Your task to perform on an android device: Go to display settings Image 0: 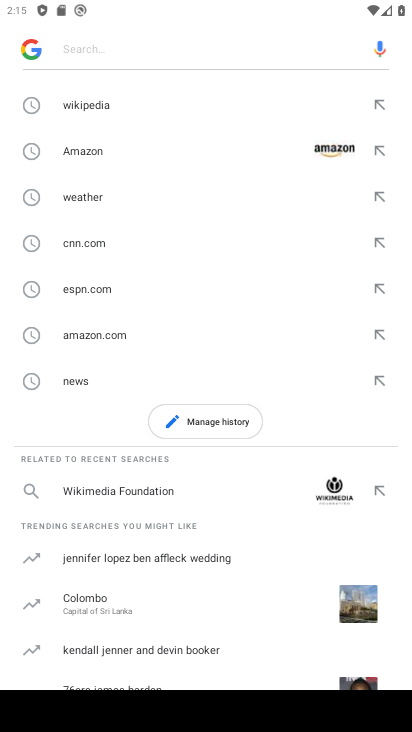
Step 0: press home button
Your task to perform on an android device: Go to display settings Image 1: 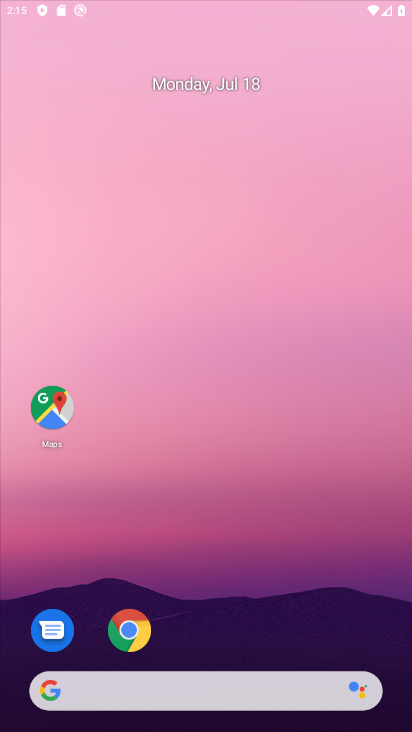
Step 1: drag from (392, 633) to (271, 44)
Your task to perform on an android device: Go to display settings Image 2: 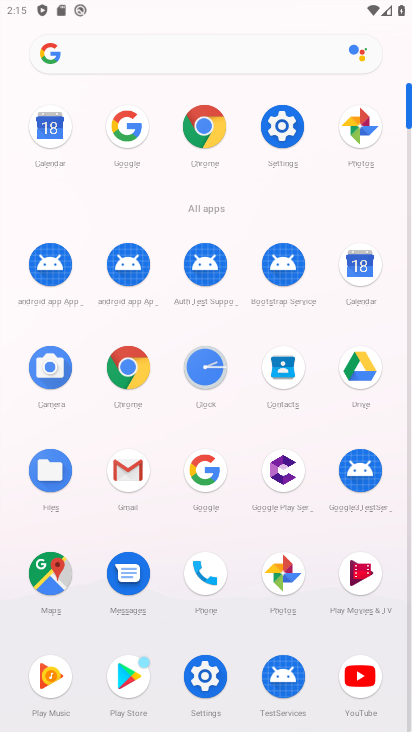
Step 2: click (260, 143)
Your task to perform on an android device: Go to display settings Image 3: 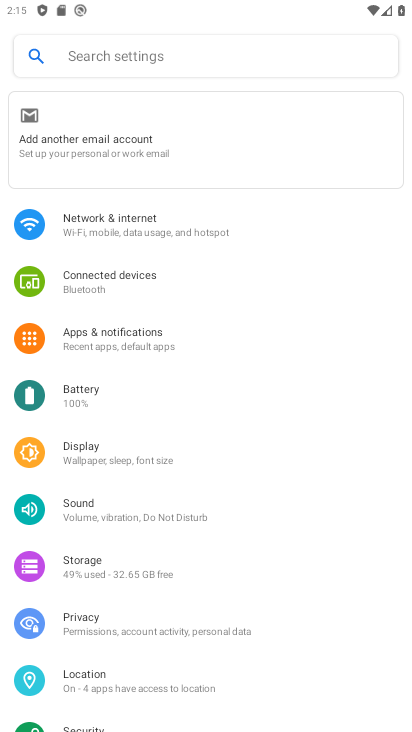
Step 3: click (98, 449)
Your task to perform on an android device: Go to display settings Image 4: 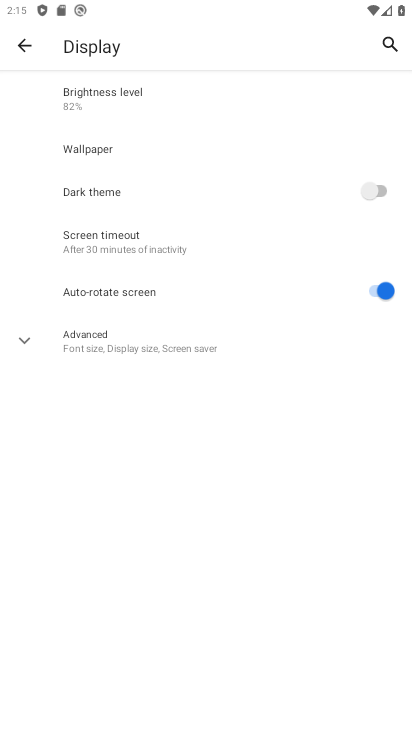
Step 4: task complete